Your task to perform on an android device: toggle location history Image 0: 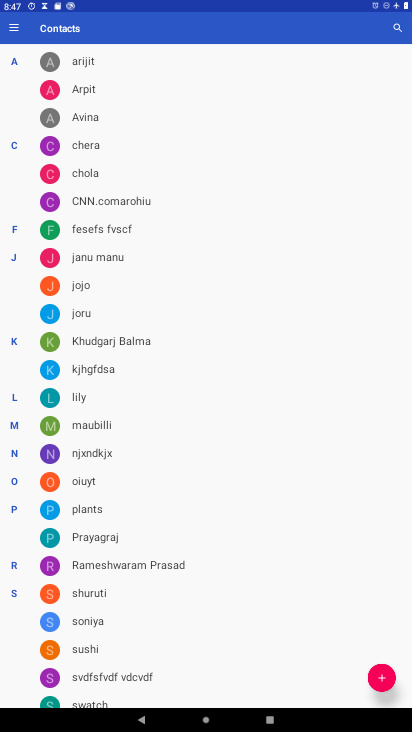
Step 0: press home button
Your task to perform on an android device: toggle location history Image 1: 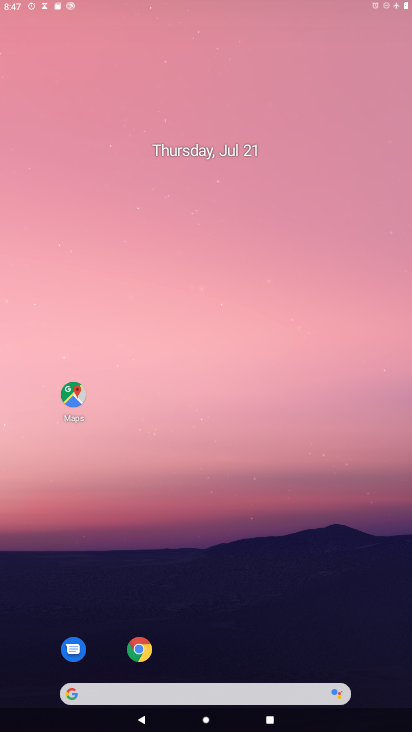
Step 1: drag from (374, 690) to (204, 38)
Your task to perform on an android device: toggle location history Image 2: 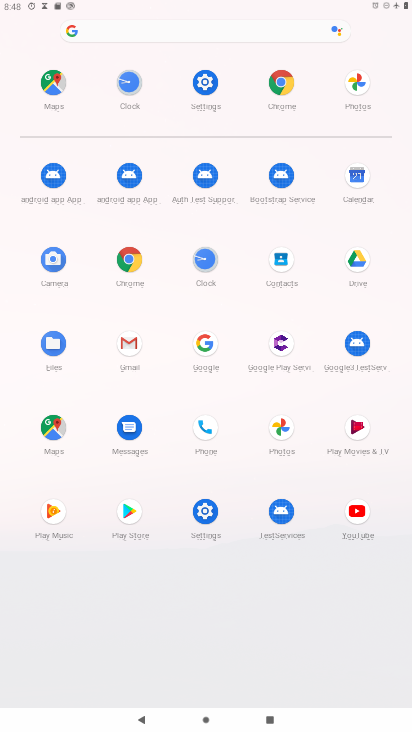
Step 2: click (216, 83)
Your task to perform on an android device: toggle location history Image 3: 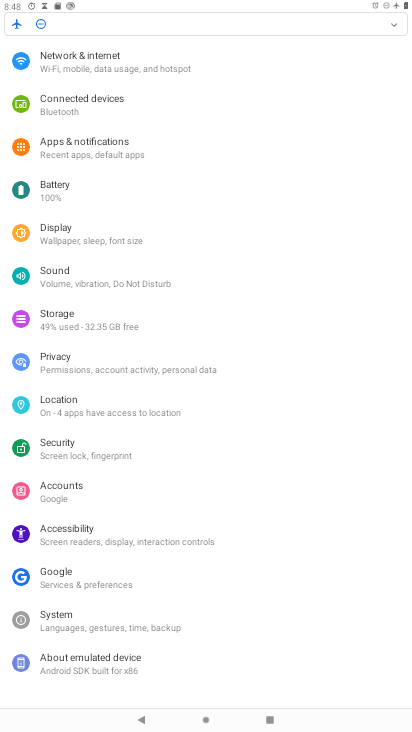
Step 3: click (54, 401)
Your task to perform on an android device: toggle location history Image 4: 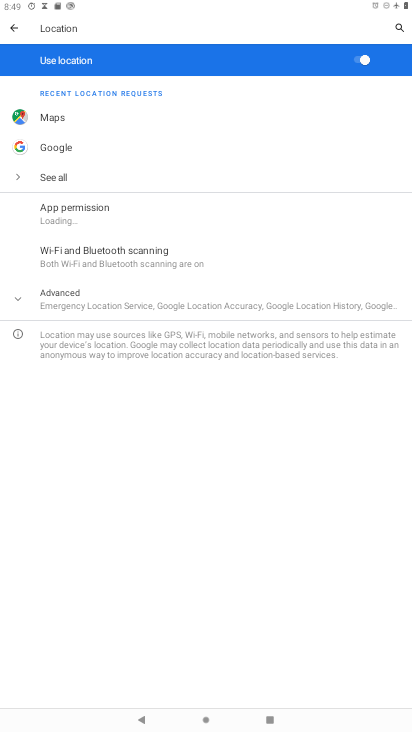
Step 4: click (95, 303)
Your task to perform on an android device: toggle location history Image 5: 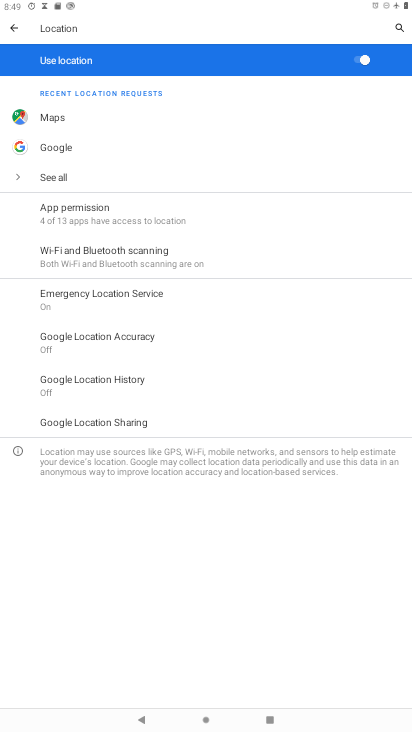
Step 5: click (113, 383)
Your task to perform on an android device: toggle location history Image 6: 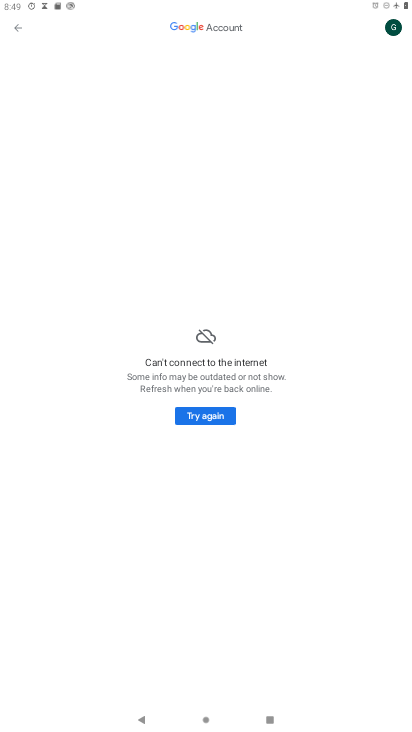
Step 6: task complete